Your task to perform on an android device: open a new tab in the chrome app Image 0: 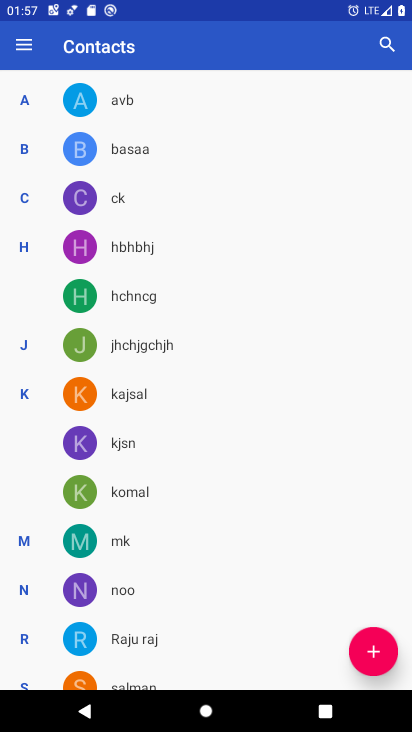
Step 0: press home button
Your task to perform on an android device: open a new tab in the chrome app Image 1: 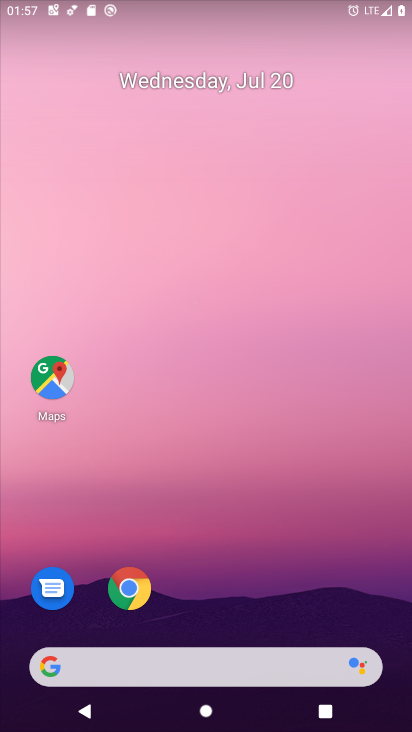
Step 1: click (136, 589)
Your task to perform on an android device: open a new tab in the chrome app Image 2: 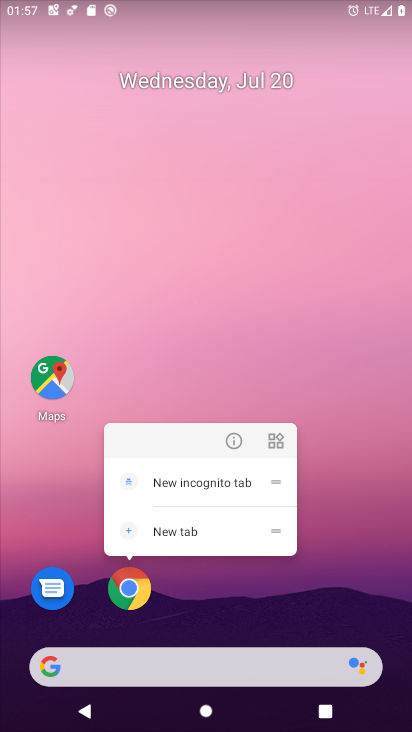
Step 2: click (132, 596)
Your task to perform on an android device: open a new tab in the chrome app Image 3: 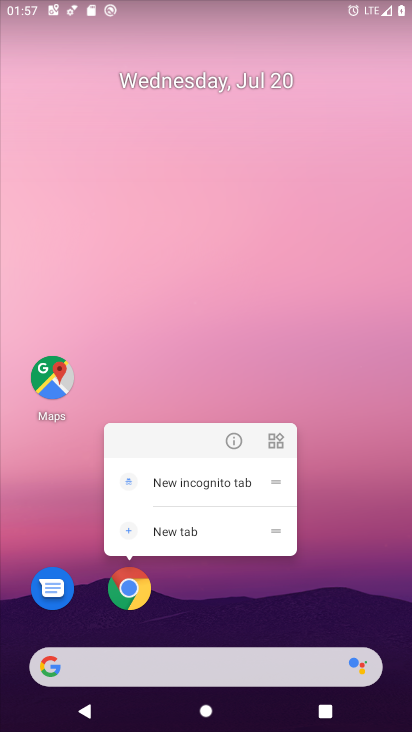
Step 3: click (132, 596)
Your task to perform on an android device: open a new tab in the chrome app Image 4: 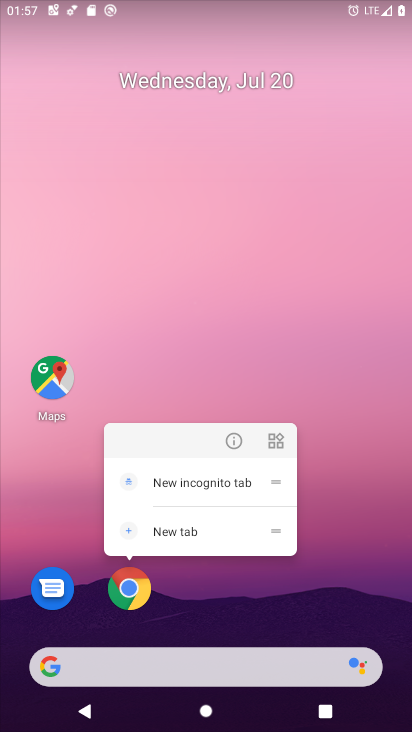
Step 4: click (132, 596)
Your task to perform on an android device: open a new tab in the chrome app Image 5: 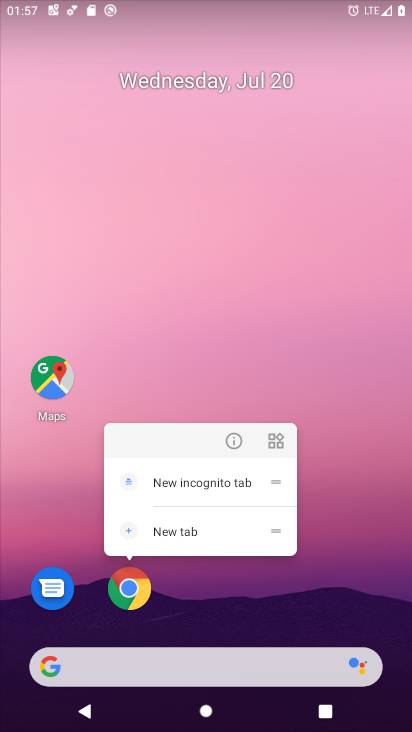
Step 5: click (132, 596)
Your task to perform on an android device: open a new tab in the chrome app Image 6: 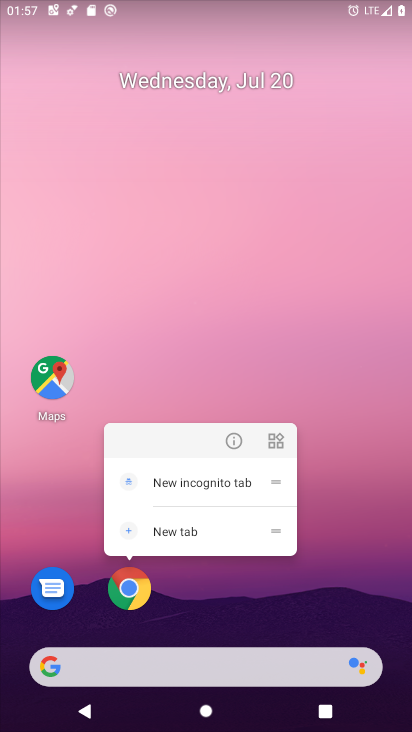
Step 6: click (335, 572)
Your task to perform on an android device: open a new tab in the chrome app Image 7: 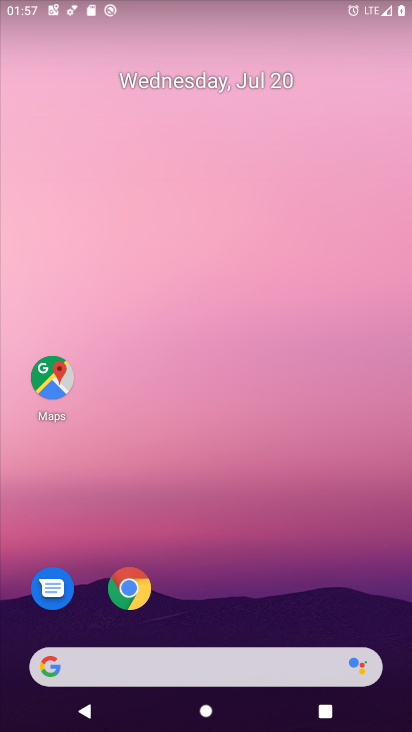
Step 7: drag from (305, 596) to (300, 426)
Your task to perform on an android device: open a new tab in the chrome app Image 8: 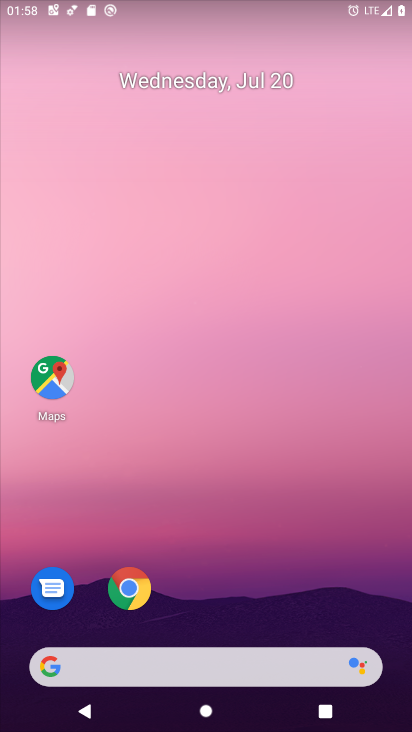
Step 8: drag from (236, 392) to (236, 137)
Your task to perform on an android device: open a new tab in the chrome app Image 9: 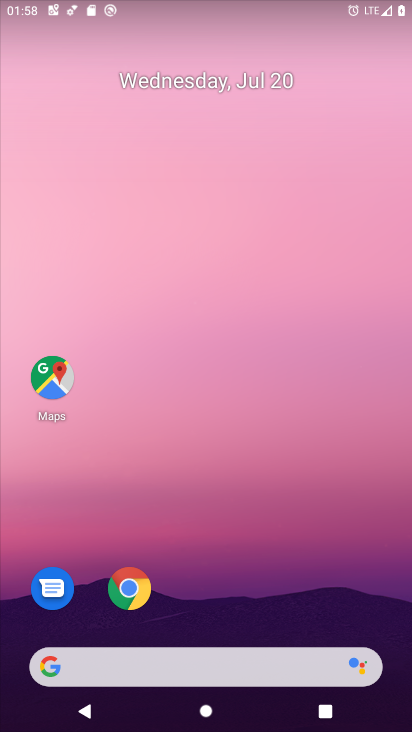
Step 9: drag from (223, 625) to (241, 127)
Your task to perform on an android device: open a new tab in the chrome app Image 10: 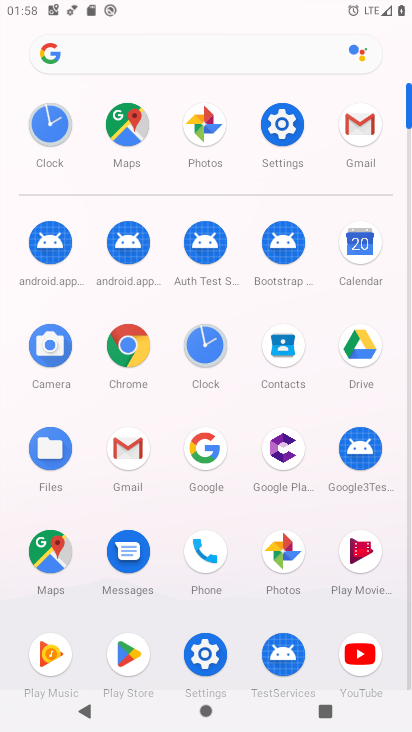
Step 10: click (131, 326)
Your task to perform on an android device: open a new tab in the chrome app Image 11: 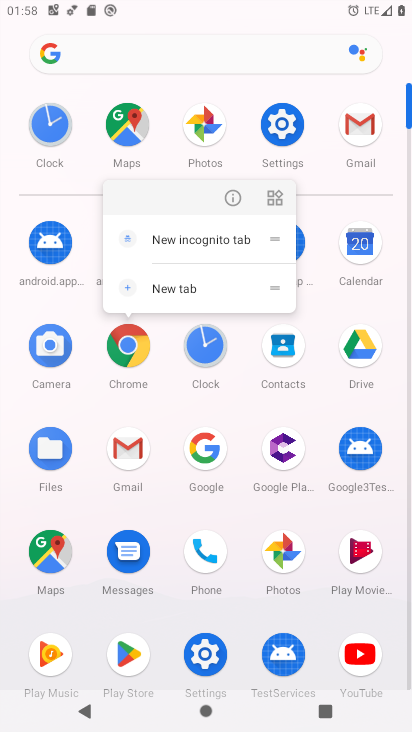
Step 11: click (130, 344)
Your task to perform on an android device: open a new tab in the chrome app Image 12: 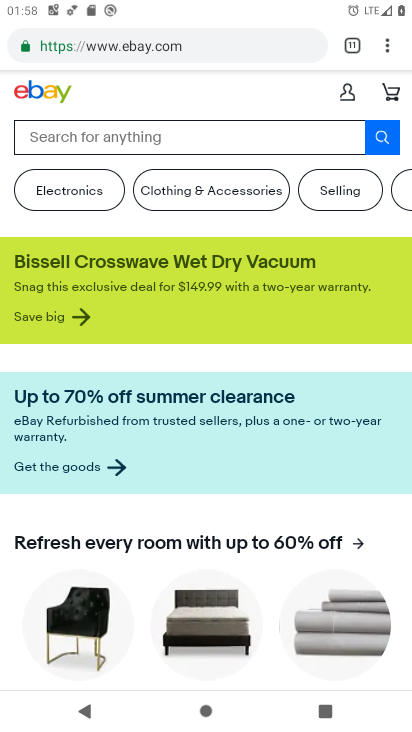
Step 12: click (393, 56)
Your task to perform on an android device: open a new tab in the chrome app Image 13: 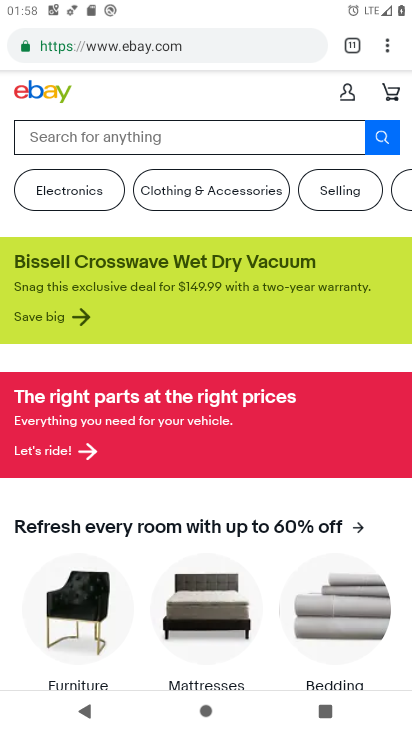
Step 13: click (389, 54)
Your task to perform on an android device: open a new tab in the chrome app Image 14: 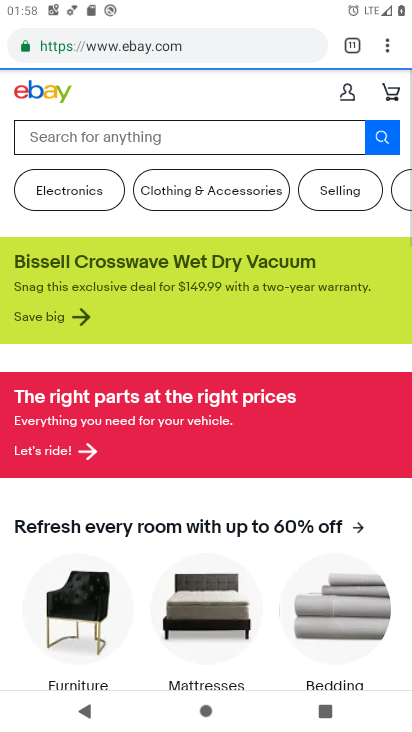
Step 14: click (405, 33)
Your task to perform on an android device: open a new tab in the chrome app Image 15: 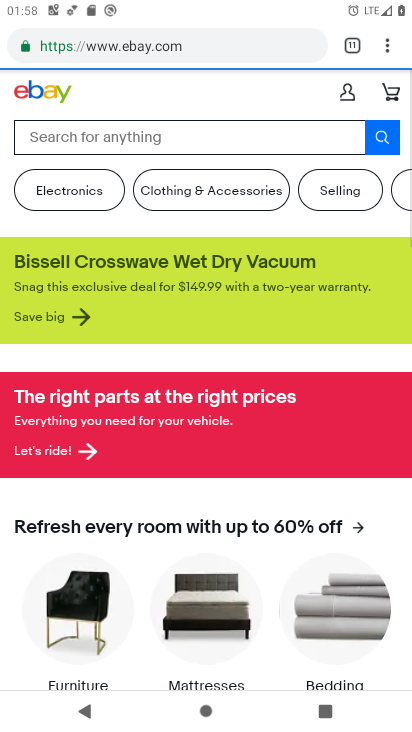
Step 15: click (394, 33)
Your task to perform on an android device: open a new tab in the chrome app Image 16: 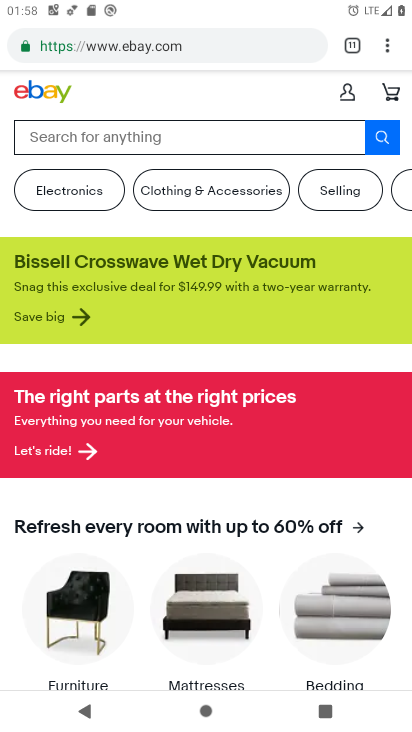
Step 16: click (392, 41)
Your task to perform on an android device: open a new tab in the chrome app Image 17: 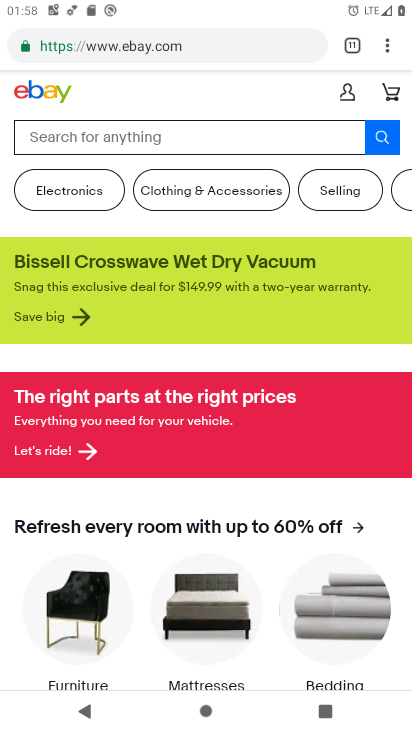
Step 17: click (392, 41)
Your task to perform on an android device: open a new tab in the chrome app Image 18: 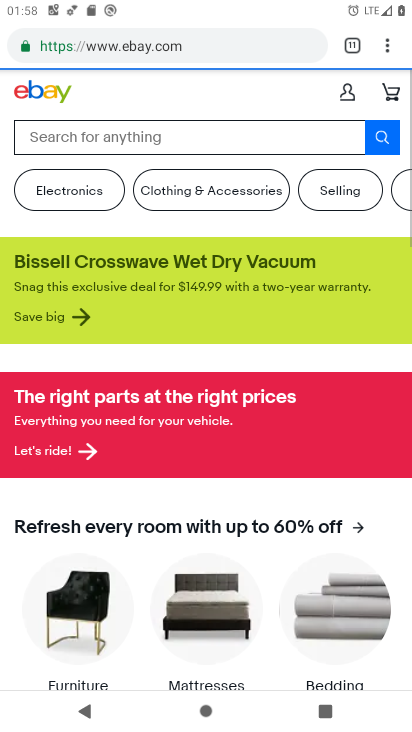
Step 18: click (392, 41)
Your task to perform on an android device: open a new tab in the chrome app Image 19: 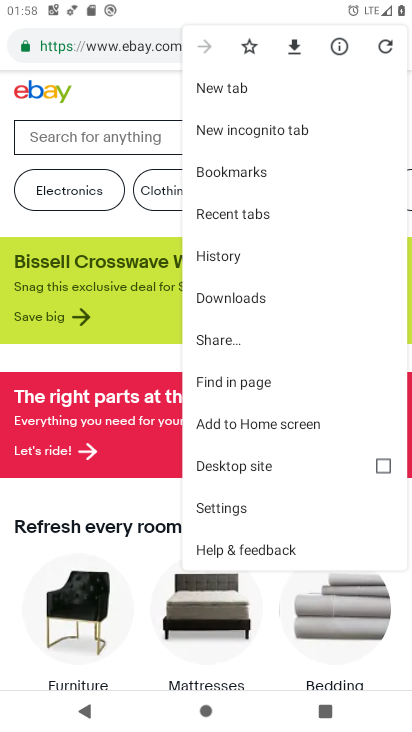
Step 19: click (230, 93)
Your task to perform on an android device: open a new tab in the chrome app Image 20: 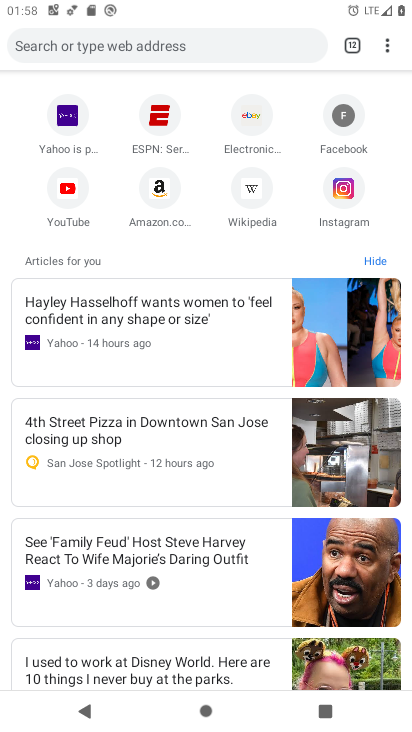
Step 20: task complete